Your task to perform on an android device: install app "ColorNote Notepad Notes" Image 0: 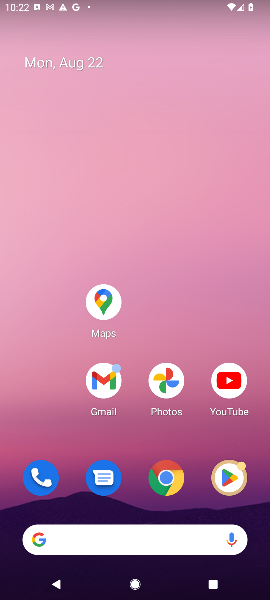
Step 0: click (228, 477)
Your task to perform on an android device: install app "ColorNote Notepad Notes" Image 1: 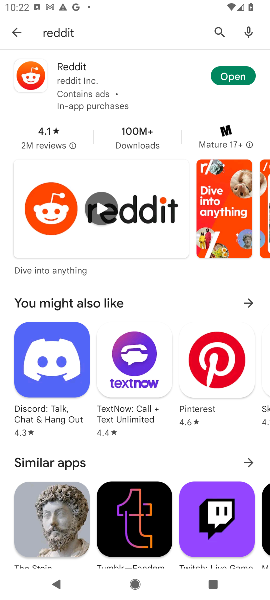
Step 1: click (219, 38)
Your task to perform on an android device: install app "ColorNote Notepad Notes" Image 2: 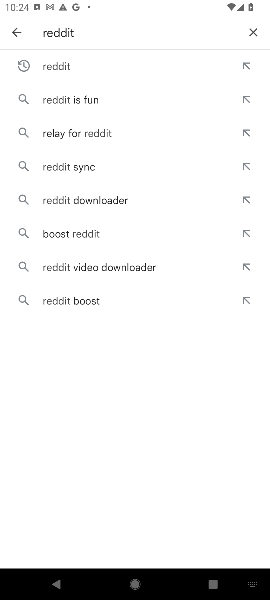
Step 2: task complete